Your task to perform on an android device: open app "Lyft - Rideshare, Bikes, Scooters & Transit" (install if not already installed) and enter user name: "deliberating@gmail.com" and password: "preyed" Image 0: 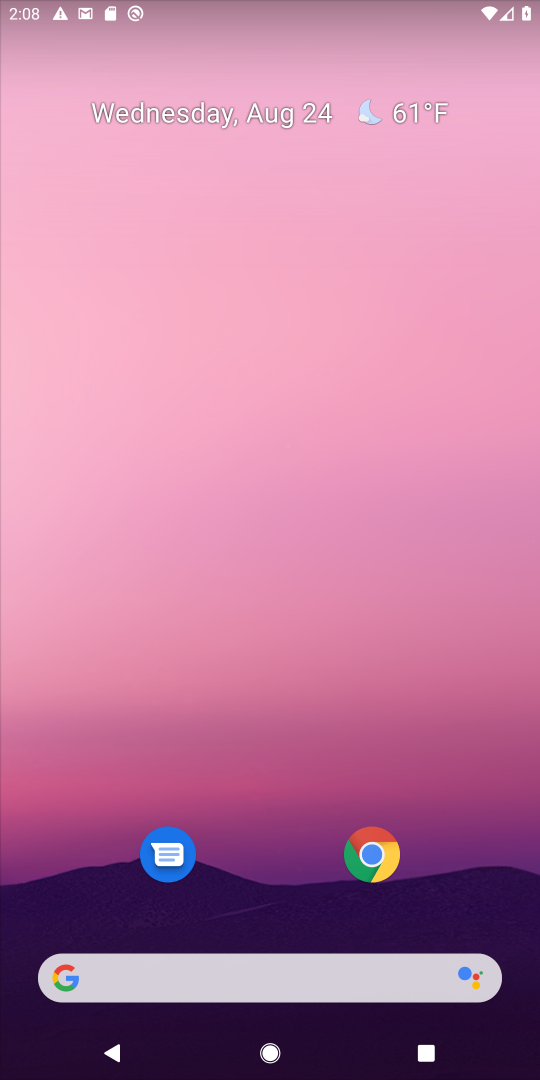
Step 0: press home button
Your task to perform on an android device: open app "Lyft - Rideshare, Bikes, Scooters & Transit" (install if not already installed) and enter user name: "deliberating@gmail.com" and password: "preyed" Image 1: 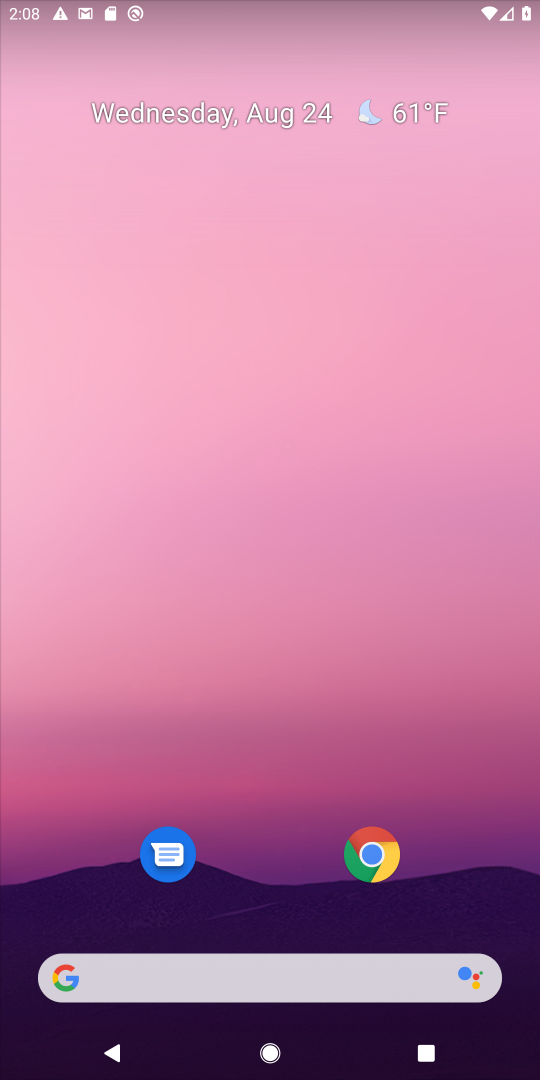
Step 1: drag from (469, 905) to (458, 82)
Your task to perform on an android device: open app "Lyft - Rideshare, Bikes, Scooters & Transit" (install if not already installed) and enter user name: "deliberating@gmail.com" and password: "preyed" Image 2: 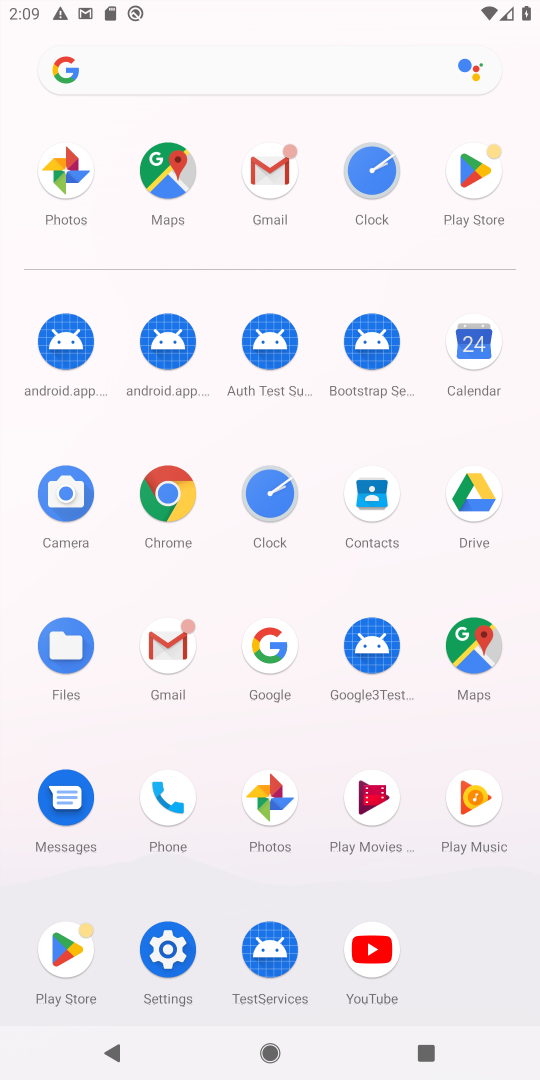
Step 2: press home button
Your task to perform on an android device: open app "Lyft - Rideshare, Bikes, Scooters & Transit" (install if not already installed) and enter user name: "deliberating@gmail.com" and password: "preyed" Image 3: 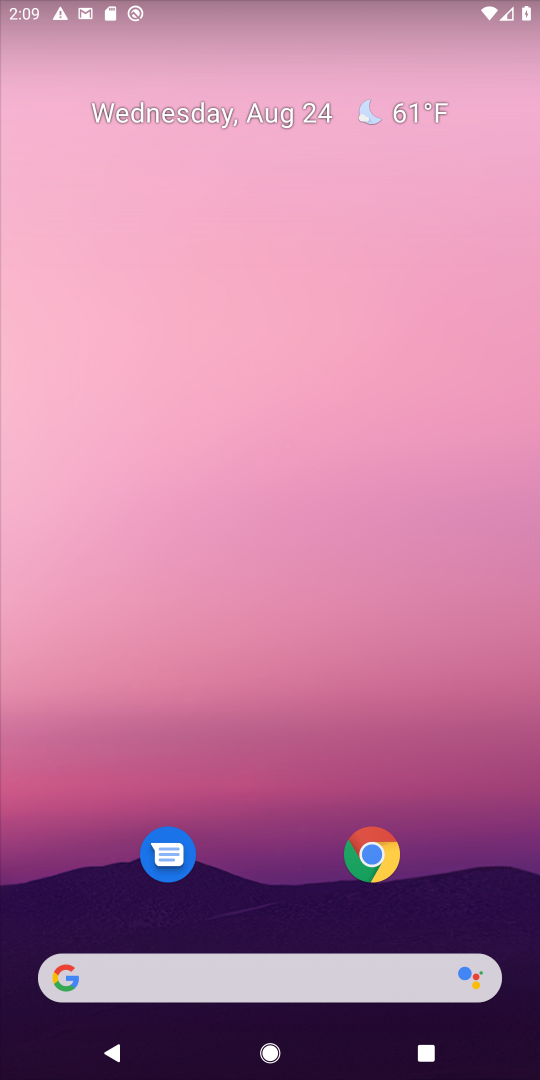
Step 3: drag from (456, 909) to (475, 185)
Your task to perform on an android device: open app "Lyft - Rideshare, Bikes, Scooters & Transit" (install if not already installed) and enter user name: "deliberating@gmail.com" and password: "preyed" Image 4: 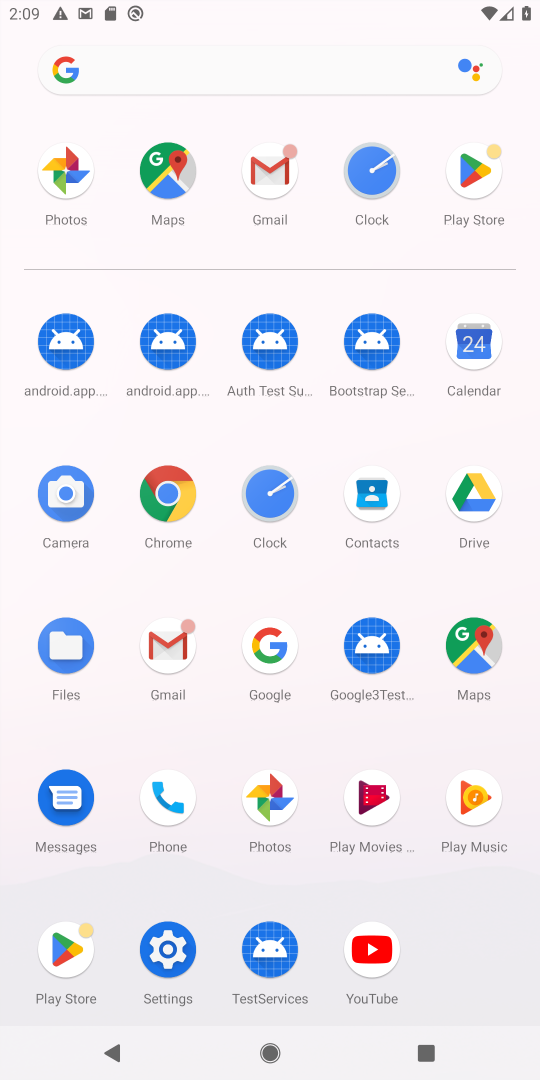
Step 4: click (479, 178)
Your task to perform on an android device: open app "Lyft - Rideshare, Bikes, Scooters & Transit" (install if not already installed) and enter user name: "deliberating@gmail.com" and password: "preyed" Image 5: 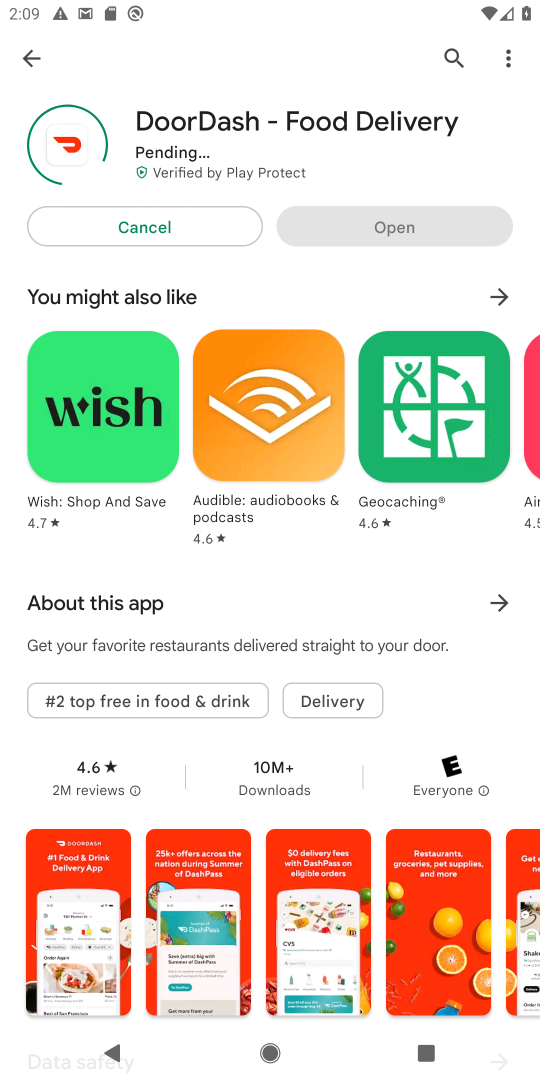
Step 5: press back button
Your task to perform on an android device: open app "Lyft - Rideshare, Bikes, Scooters & Transit" (install if not already installed) and enter user name: "deliberating@gmail.com" and password: "preyed" Image 6: 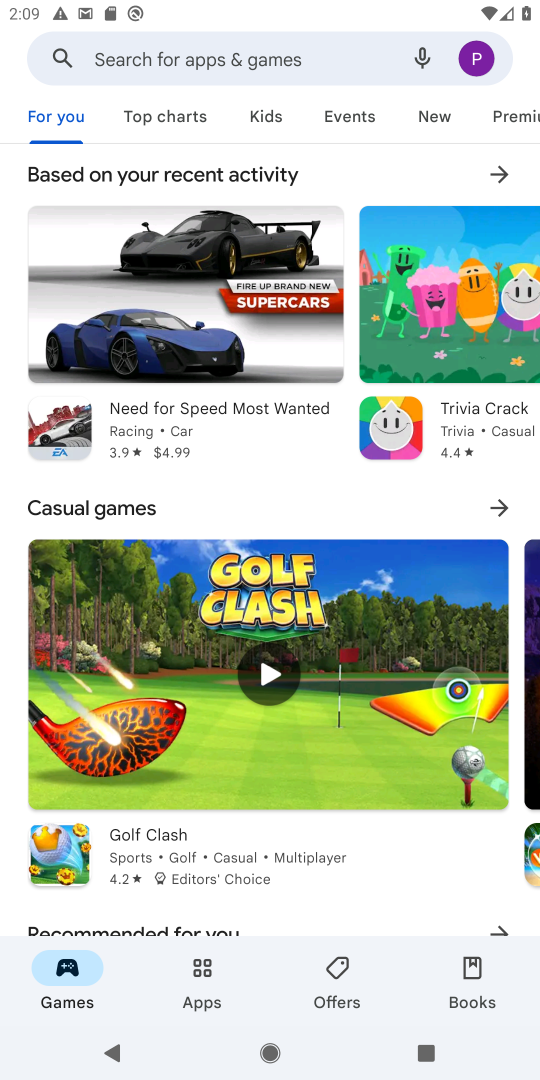
Step 6: click (206, 58)
Your task to perform on an android device: open app "Lyft - Rideshare, Bikes, Scooters & Transit" (install if not already installed) and enter user name: "deliberating@gmail.com" and password: "preyed" Image 7: 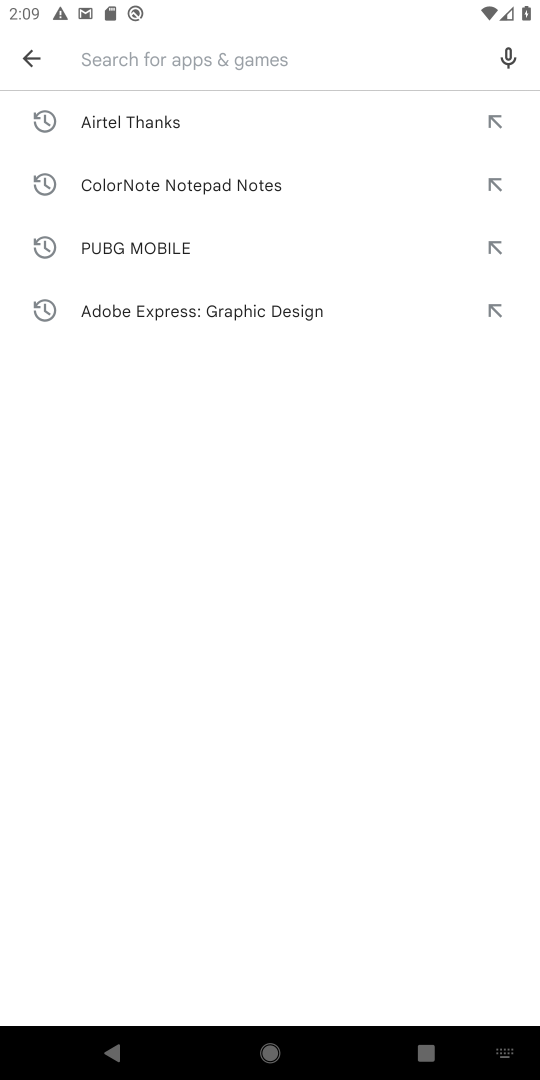
Step 7: type "Lyft - Rideshare, Bikes, Scooters & Transit"
Your task to perform on an android device: open app "Lyft - Rideshare, Bikes, Scooters & Transit" (install if not already installed) and enter user name: "deliberating@gmail.com" and password: "preyed" Image 8: 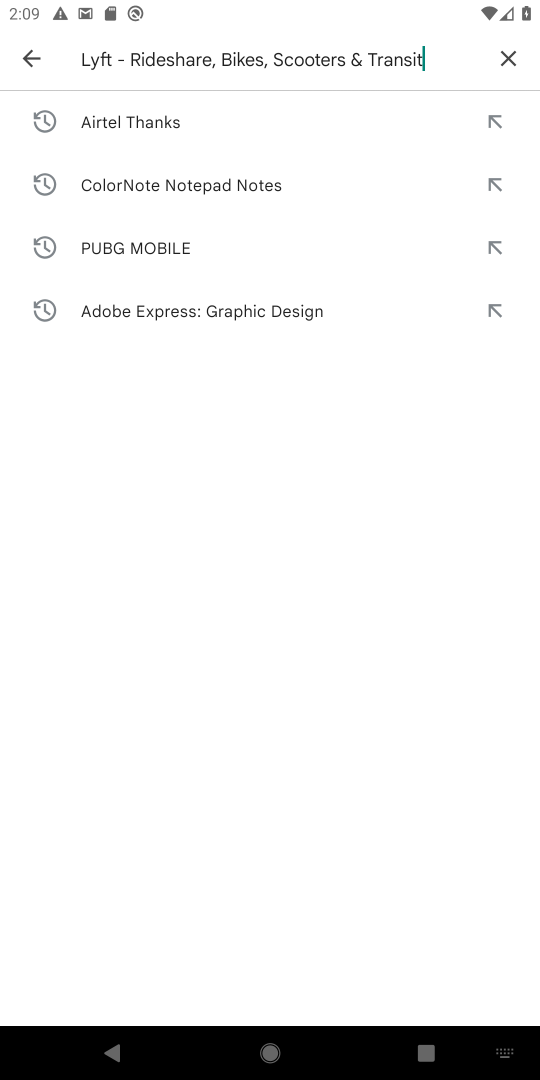
Step 8: press enter
Your task to perform on an android device: open app "Lyft - Rideshare, Bikes, Scooters & Transit" (install if not already installed) and enter user name: "deliberating@gmail.com" and password: "preyed" Image 9: 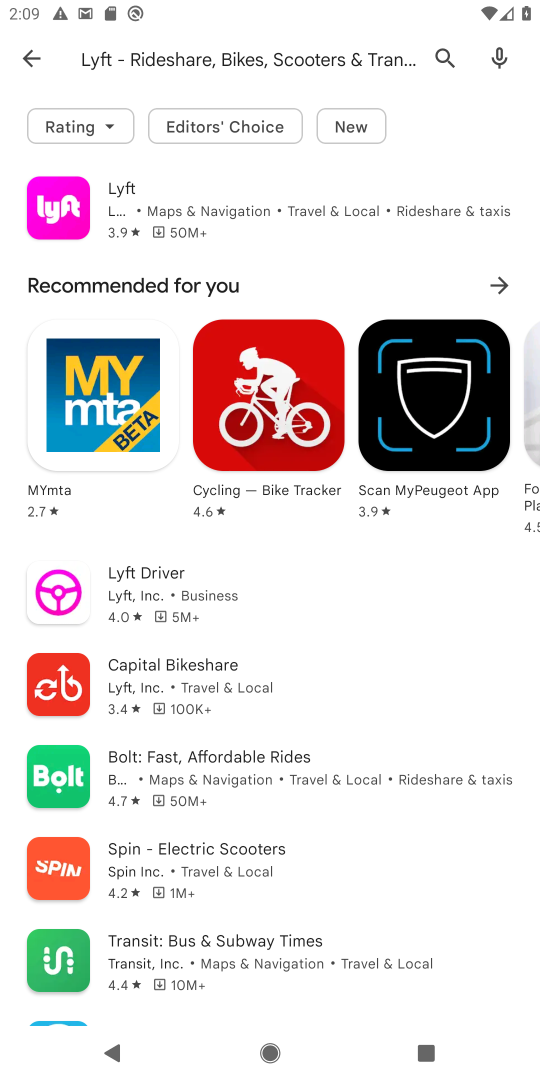
Step 9: click (154, 214)
Your task to perform on an android device: open app "Lyft - Rideshare, Bikes, Scooters & Transit" (install if not already installed) and enter user name: "deliberating@gmail.com" and password: "preyed" Image 10: 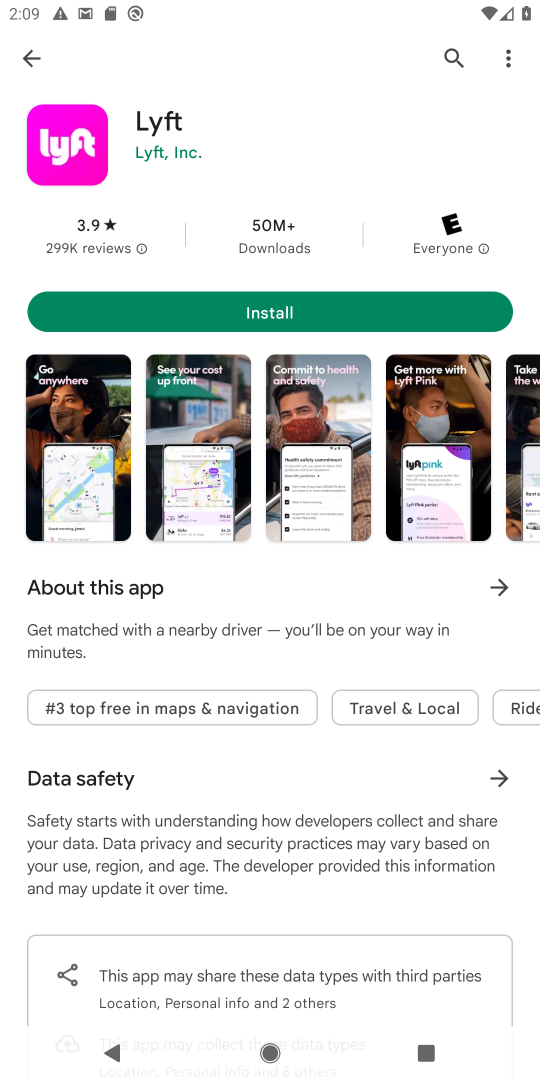
Step 10: click (361, 301)
Your task to perform on an android device: open app "Lyft - Rideshare, Bikes, Scooters & Transit" (install if not already installed) and enter user name: "deliberating@gmail.com" and password: "preyed" Image 11: 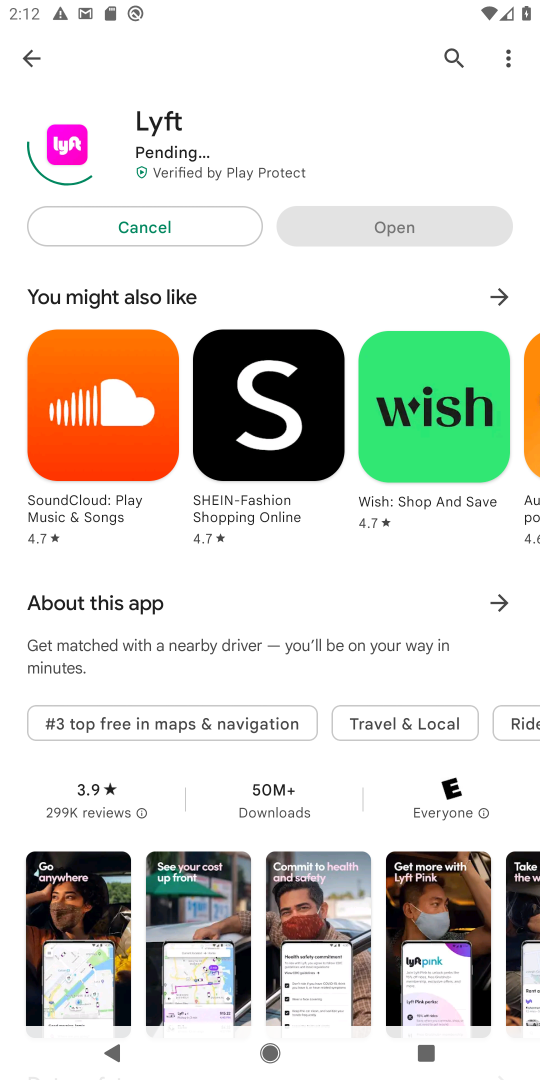
Step 11: task complete